Your task to perform on an android device: Search for rayovac triple a on ebay, select the first entry, and add it to the cart. Image 0: 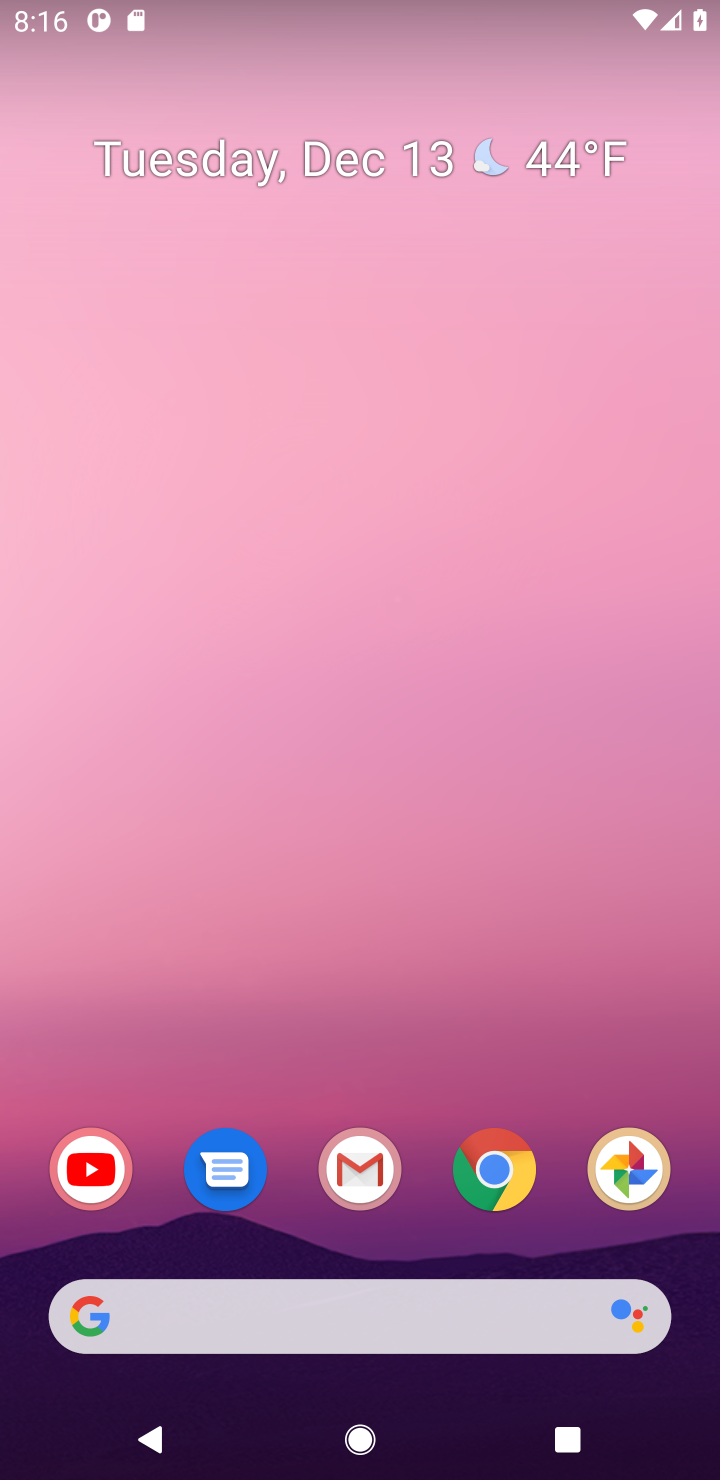
Step 0: click (505, 1168)
Your task to perform on an android device: Search for rayovac triple a on ebay, select the first entry, and add it to the cart. Image 1: 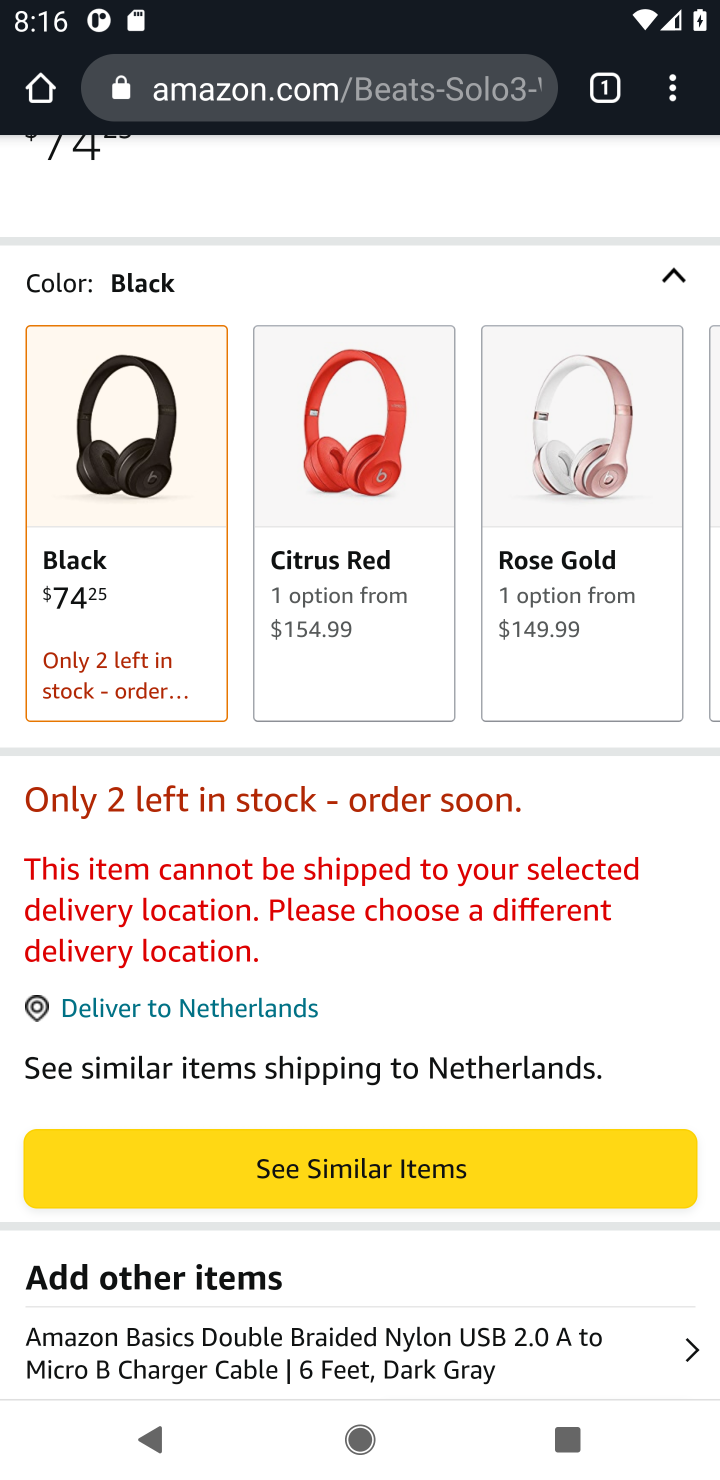
Step 1: click (409, 104)
Your task to perform on an android device: Search for rayovac triple a on ebay, select the first entry, and add it to the cart. Image 2: 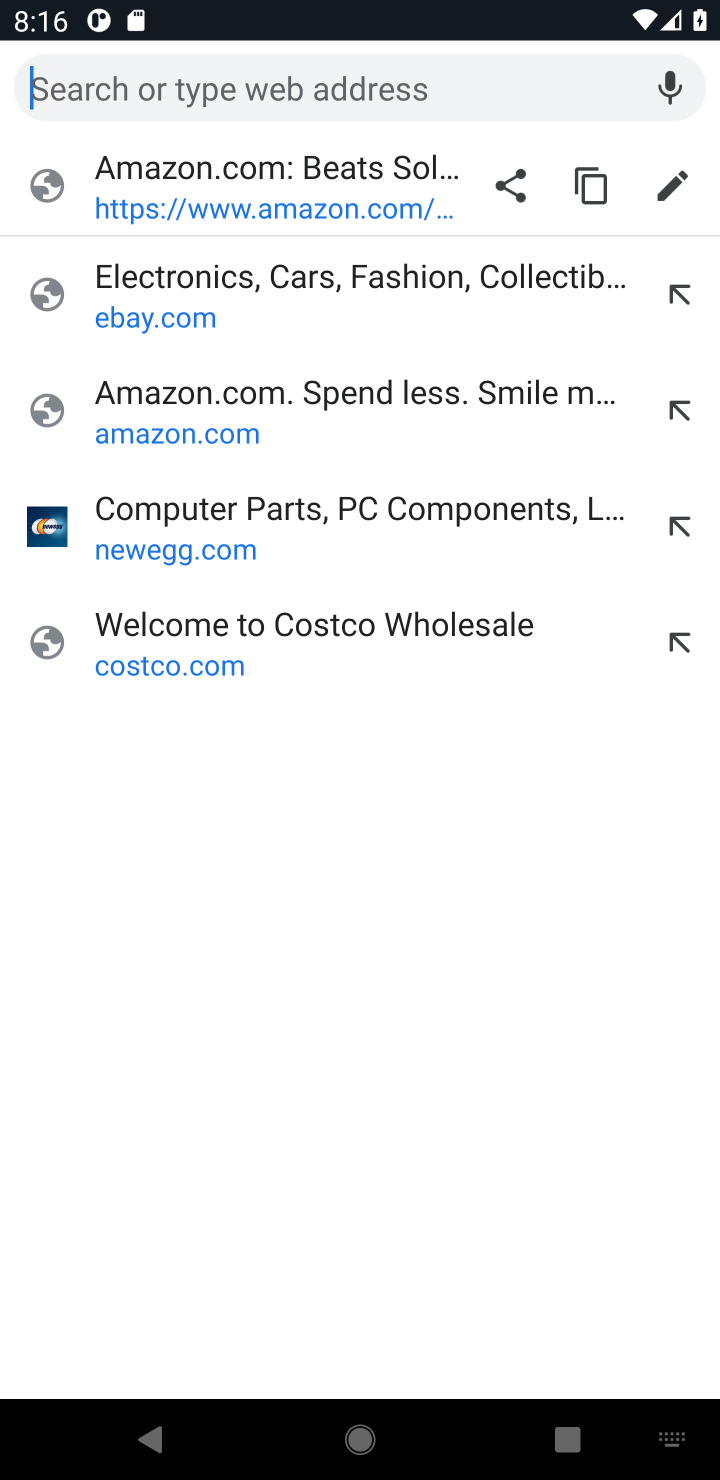
Step 2: type "ebay.com"
Your task to perform on an android device: Search for rayovac triple a on ebay, select the first entry, and add it to the cart. Image 3: 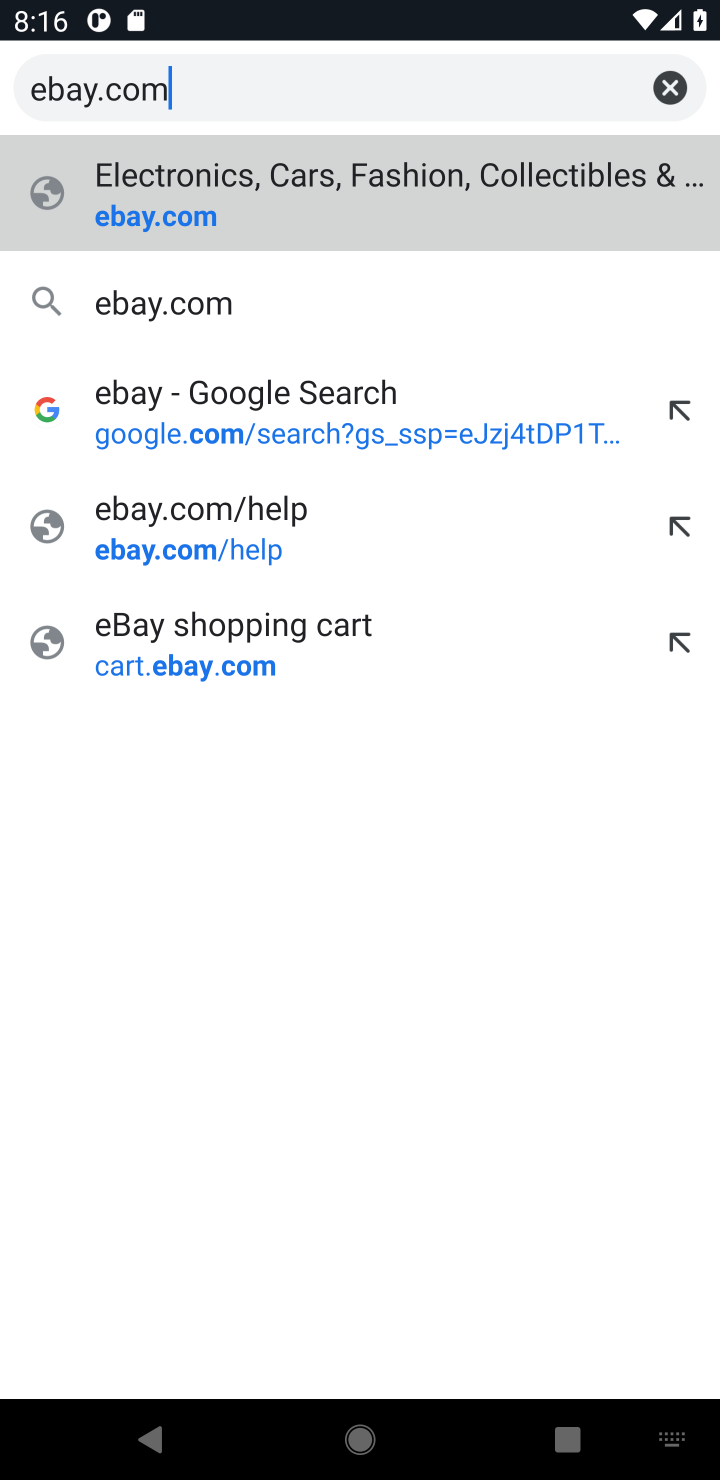
Step 3: click (282, 224)
Your task to perform on an android device: Search for rayovac triple a on ebay, select the first entry, and add it to the cart. Image 4: 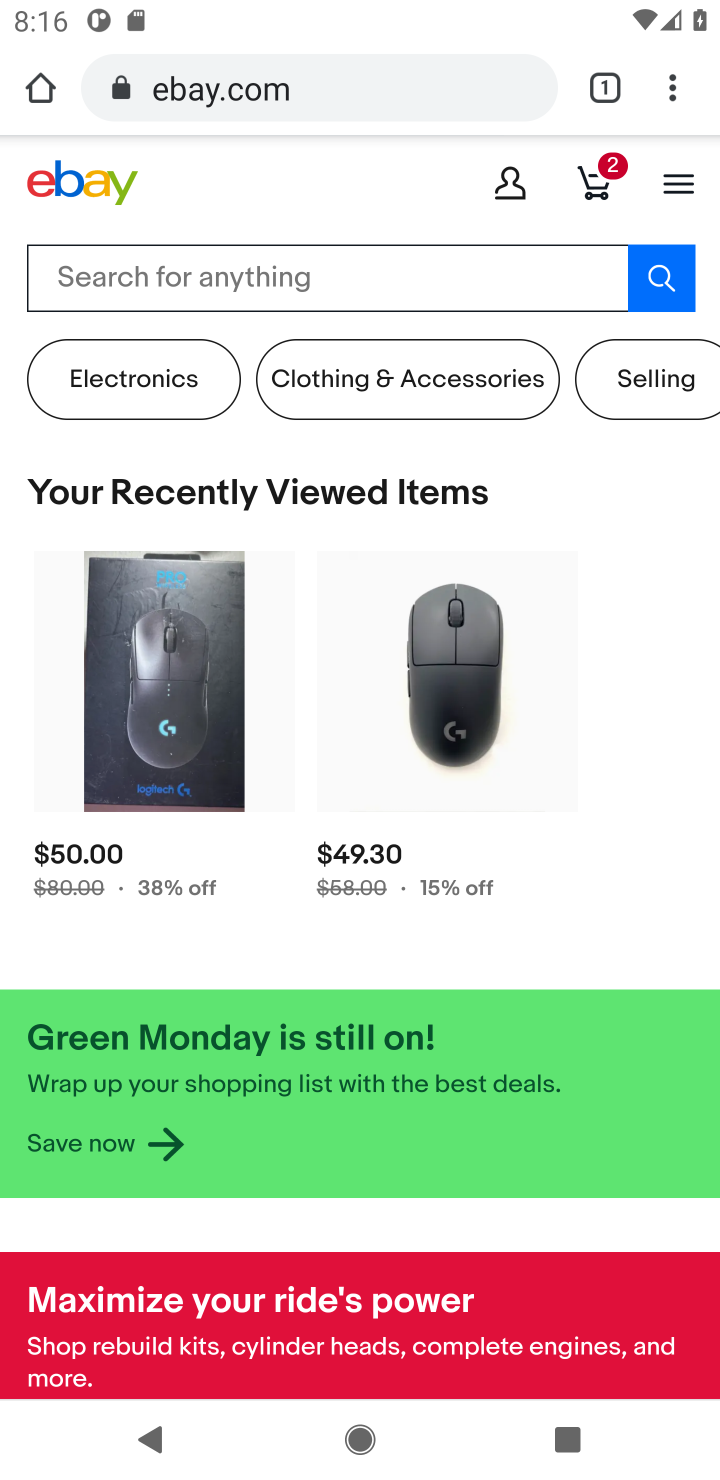
Step 4: click (275, 283)
Your task to perform on an android device: Search for rayovac triple a on ebay, select the first entry, and add it to the cart. Image 5: 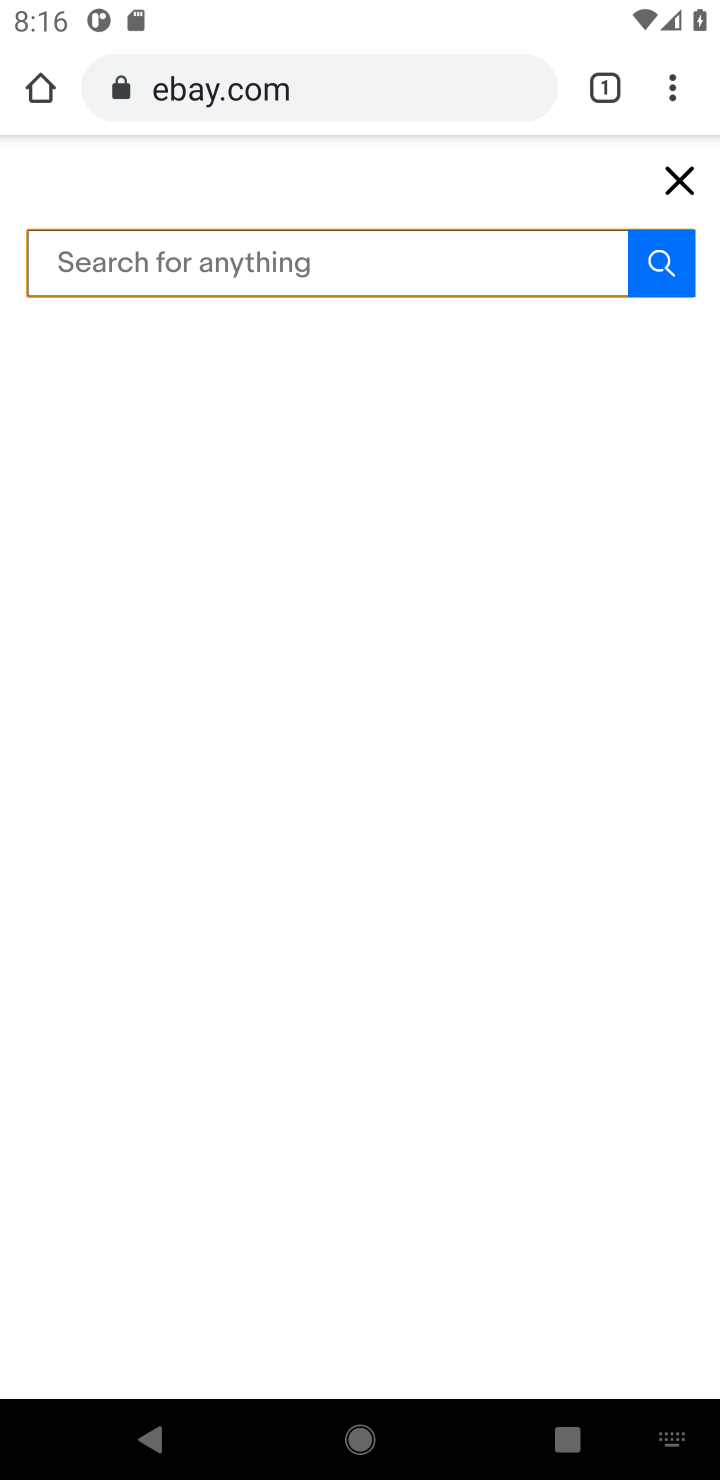
Step 5: type "rayovac"
Your task to perform on an android device: Search for rayovac triple a on ebay, select the first entry, and add it to the cart. Image 6: 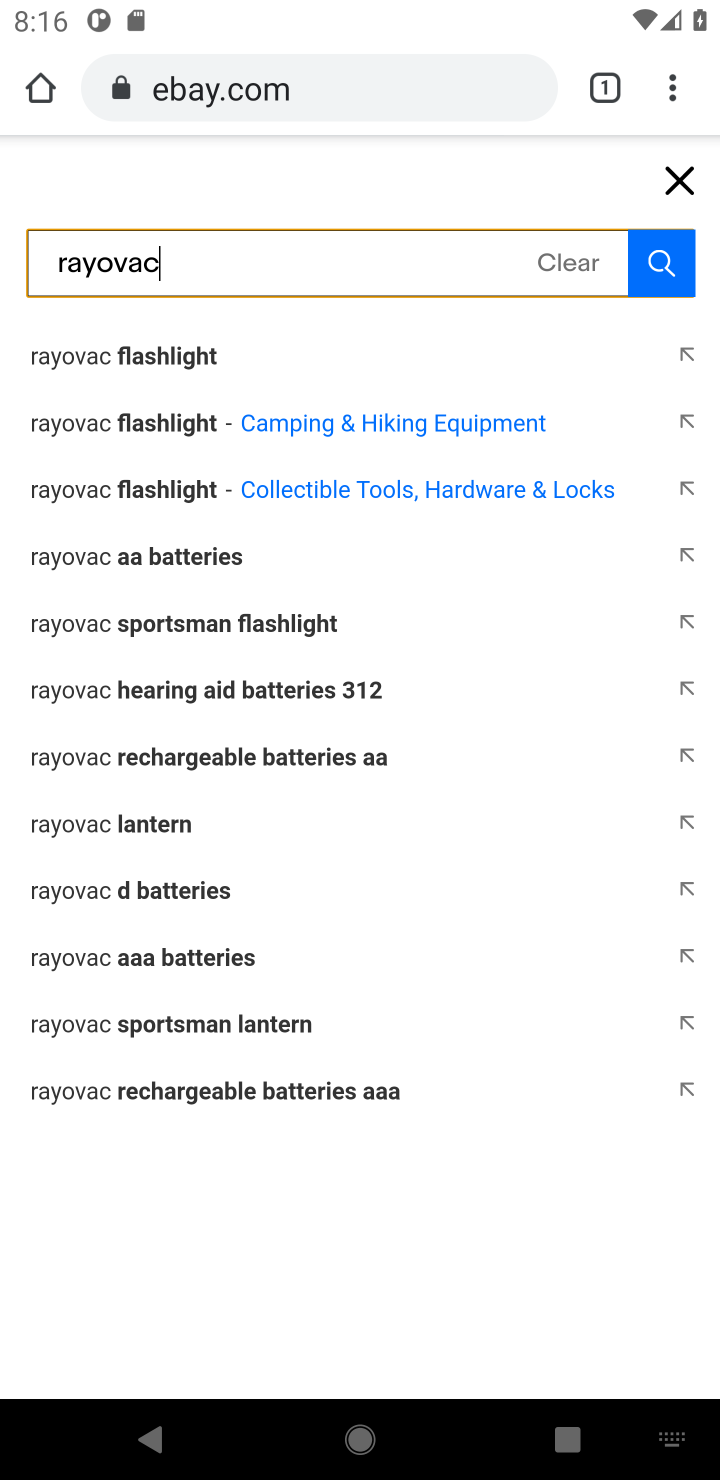
Step 6: click (649, 274)
Your task to perform on an android device: Search for rayovac triple a on ebay, select the first entry, and add it to the cart. Image 7: 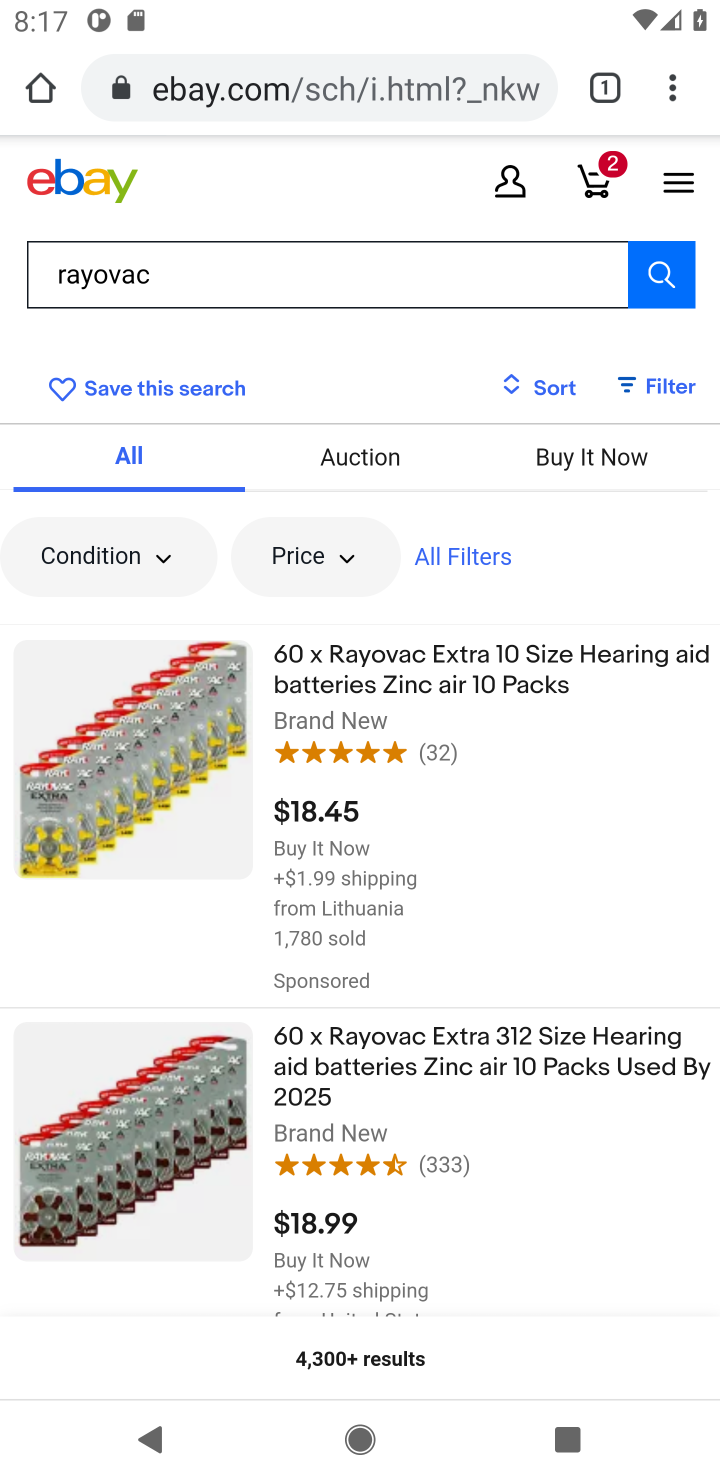
Step 7: click (301, 665)
Your task to perform on an android device: Search for rayovac triple a on ebay, select the first entry, and add it to the cart. Image 8: 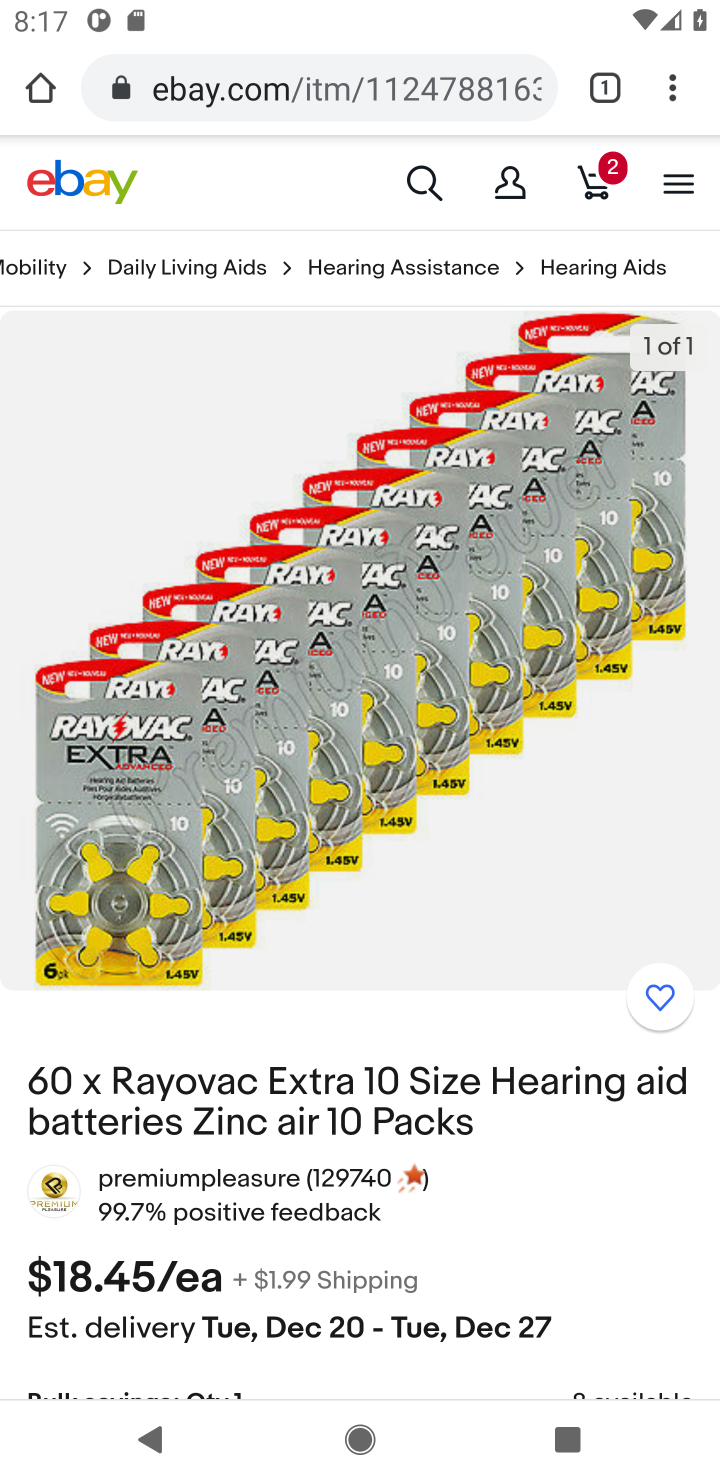
Step 8: drag from (447, 1164) to (429, 554)
Your task to perform on an android device: Search for rayovac triple a on ebay, select the first entry, and add it to the cart. Image 9: 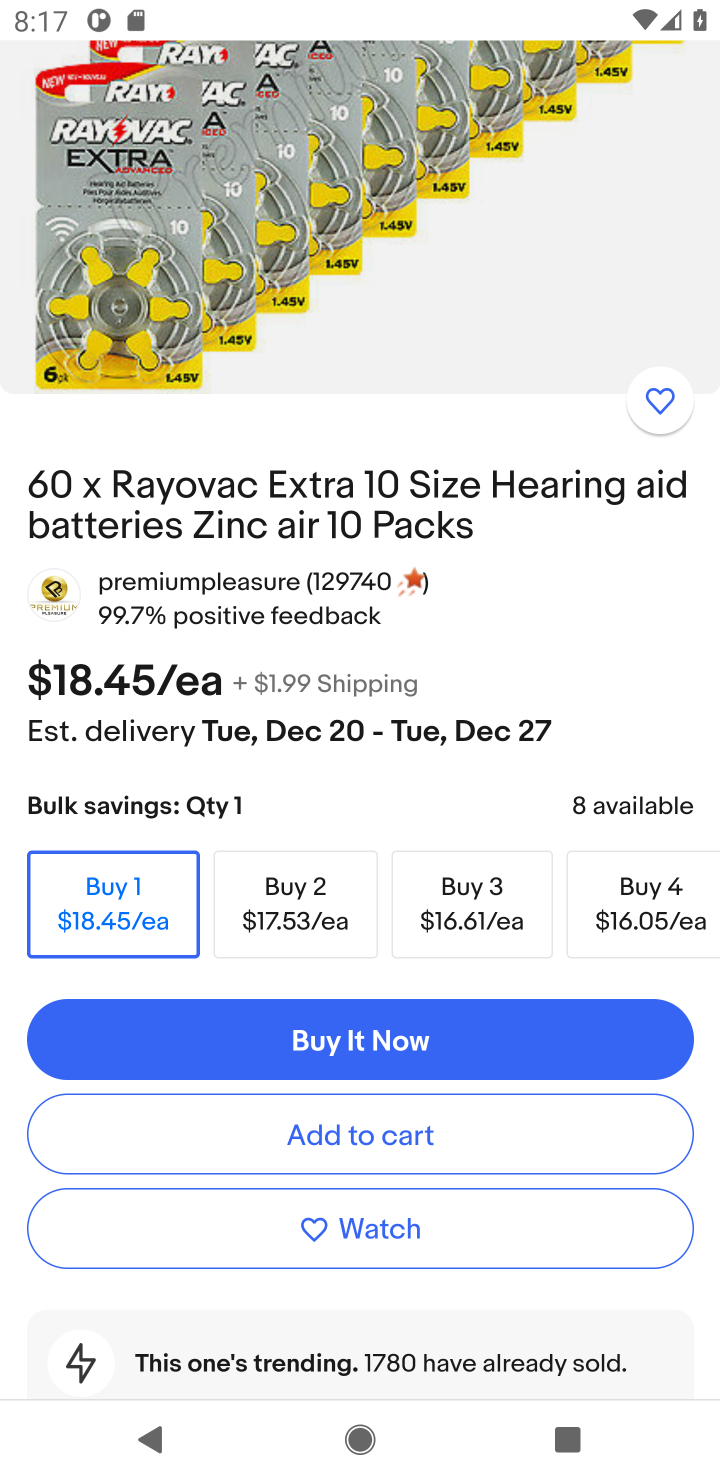
Step 9: click (394, 1109)
Your task to perform on an android device: Search for rayovac triple a on ebay, select the first entry, and add it to the cart. Image 10: 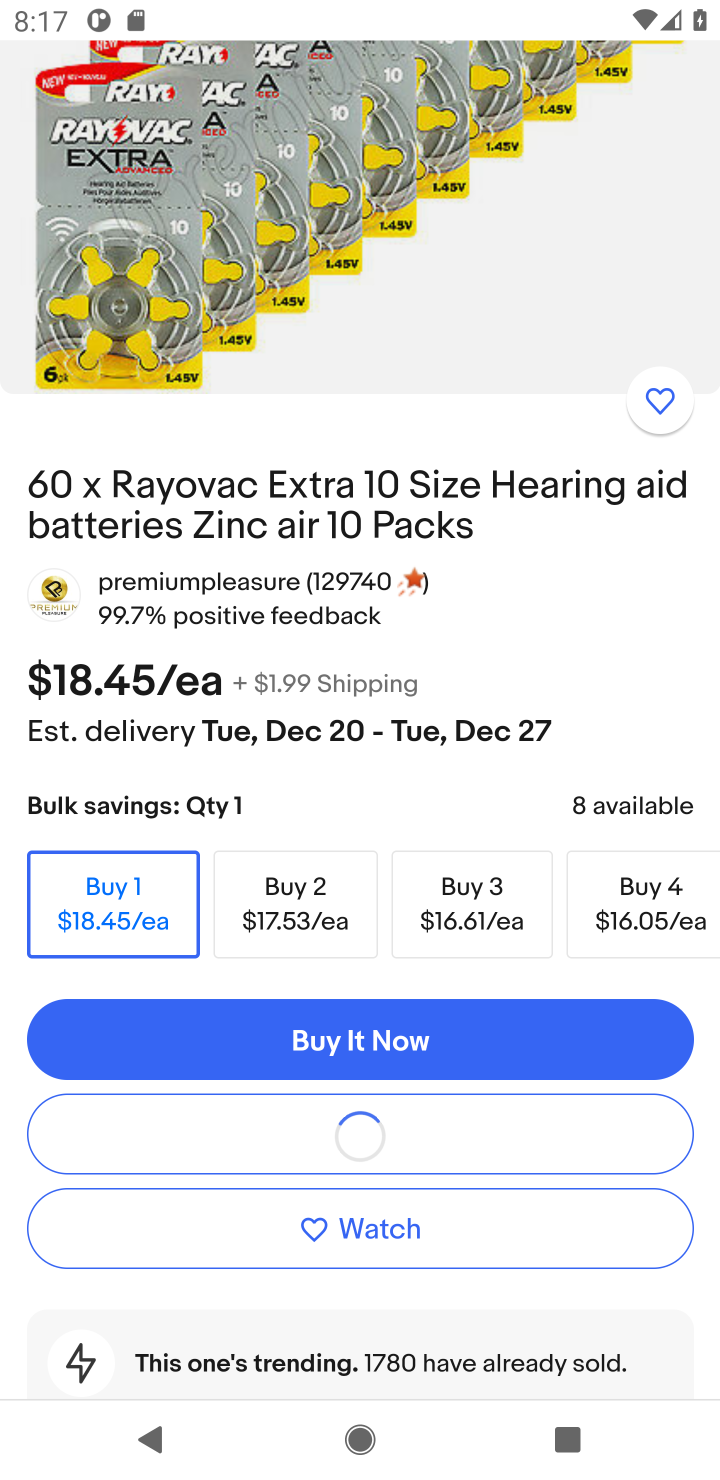
Step 10: task complete